Your task to perform on an android device: set the stopwatch Image 0: 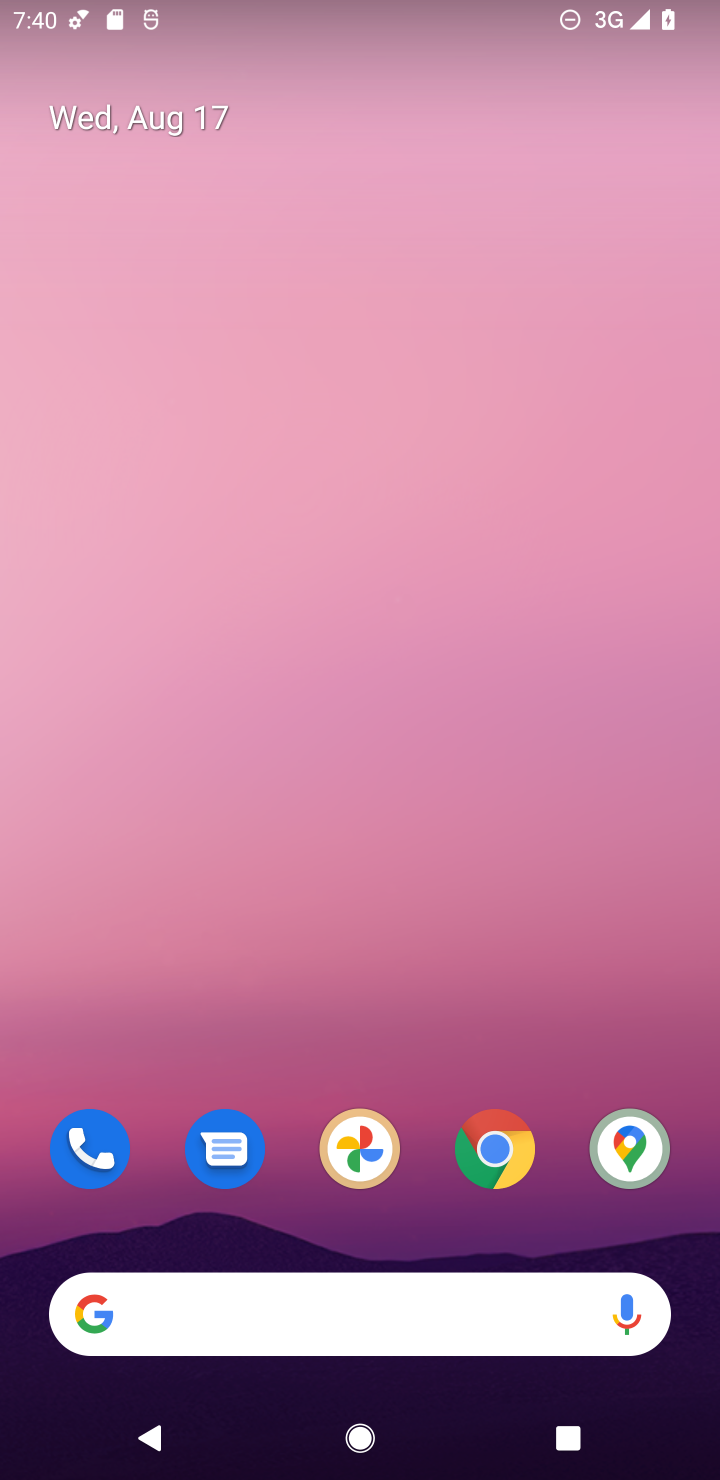
Step 0: drag from (419, 1233) to (426, 113)
Your task to perform on an android device: set the stopwatch Image 1: 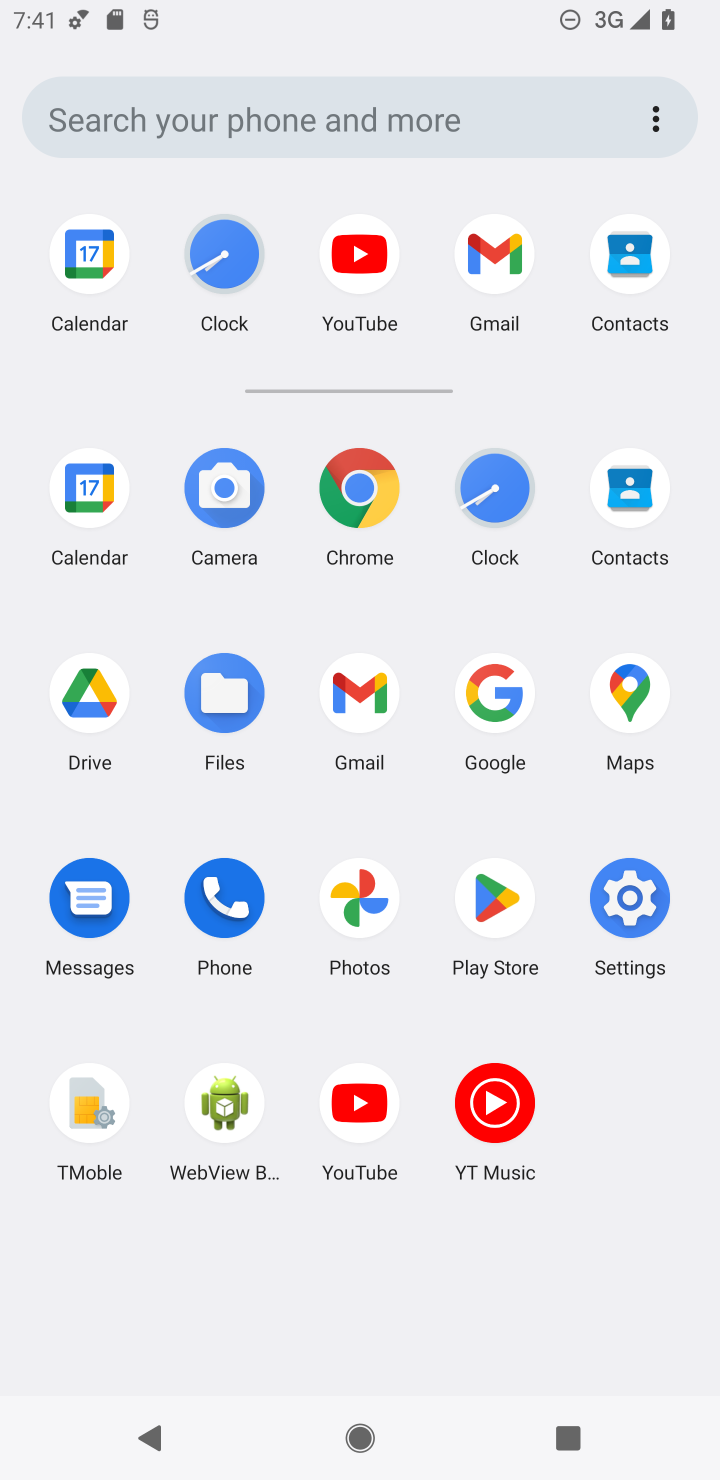
Step 1: click (494, 487)
Your task to perform on an android device: set the stopwatch Image 2: 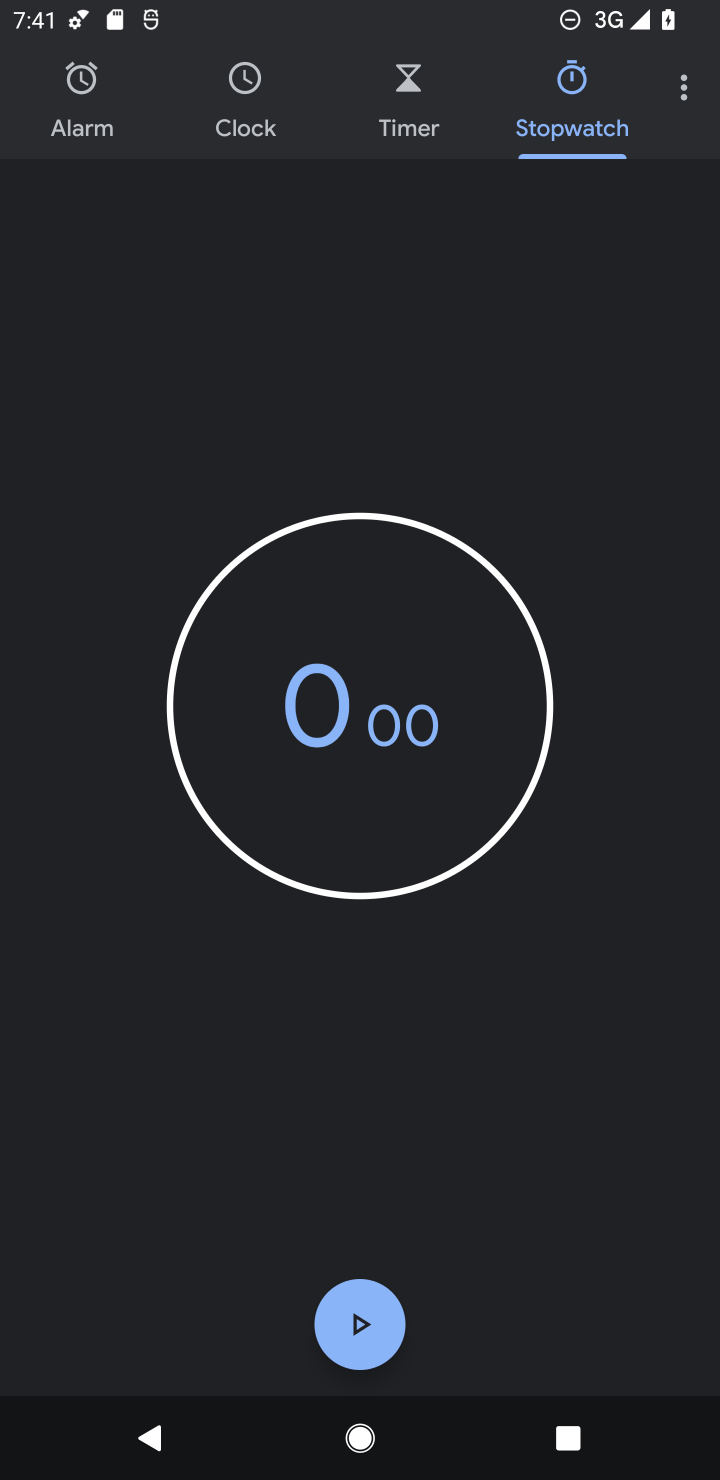
Step 2: task complete